Your task to perform on an android device: turn on location history Image 0: 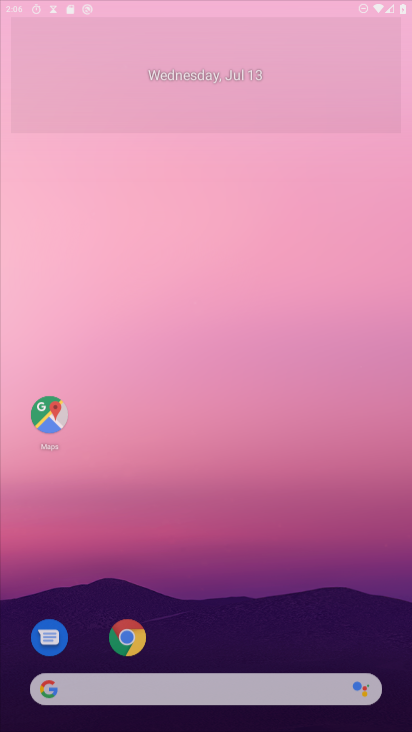
Step 0: press home button
Your task to perform on an android device: turn on location history Image 1: 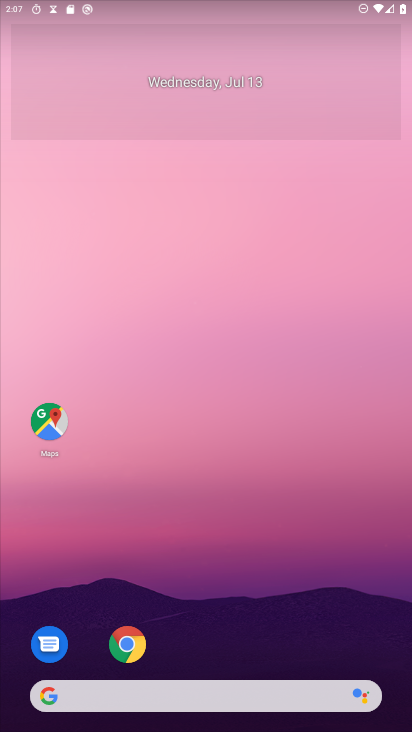
Step 1: press home button
Your task to perform on an android device: turn on location history Image 2: 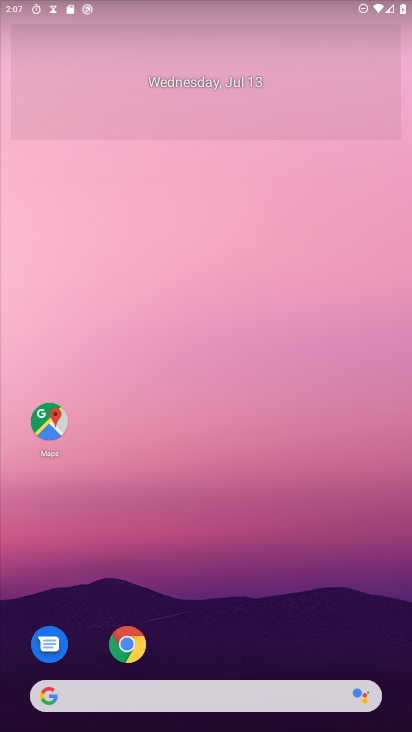
Step 2: drag from (311, 596) to (297, 55)
Your task to perform on an android device: turn on location history Image 3: 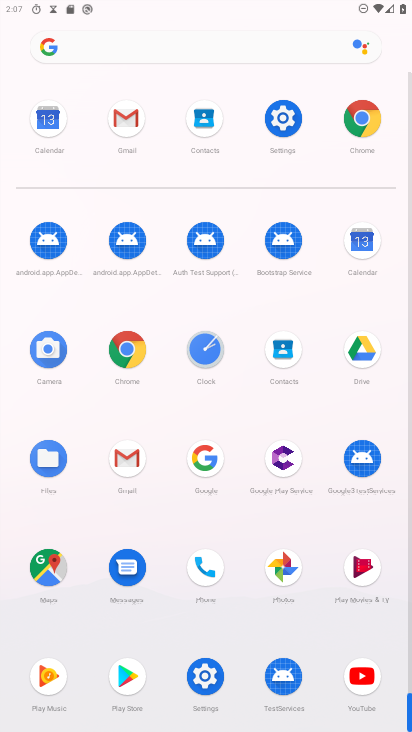
Step 3: click (285, 117)
Your task to perform on an android device: turn on location history Image 4: 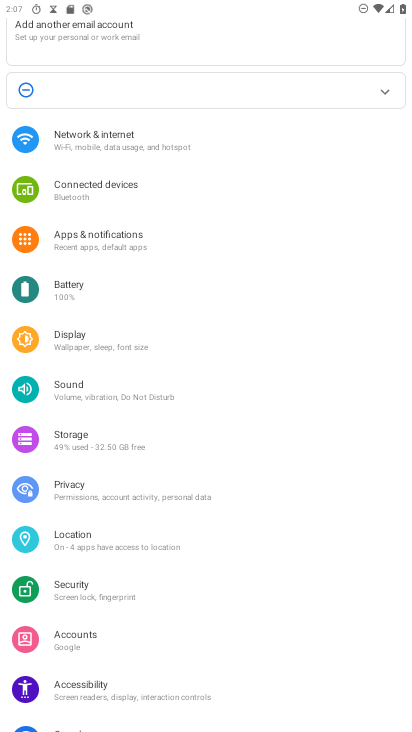
Step 4: click (100, 540)
Your task to perform on an android device: turn on location history Image 5: 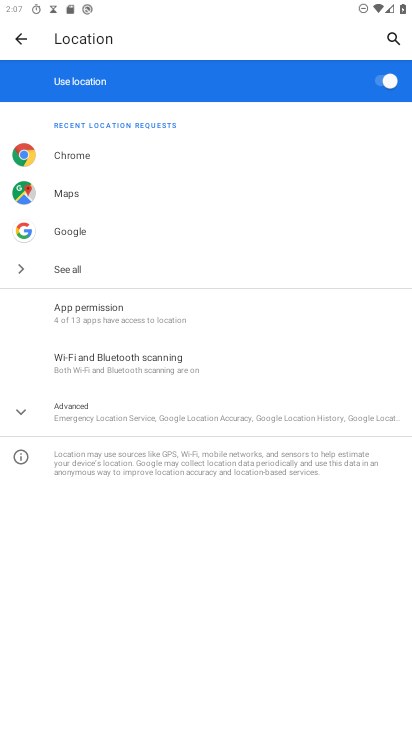
Step 5: click (74, 414)
Your task to perform on an android device: turn on location history Image 6: 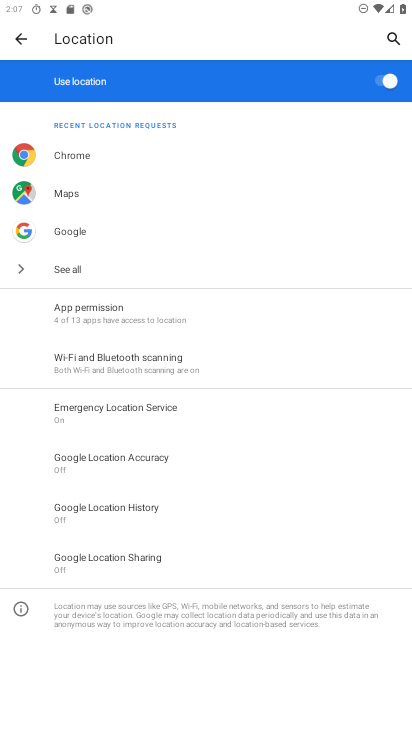
Step 6: click (130, 508)
Your task to perform on an android device: turn on location history Image 7: 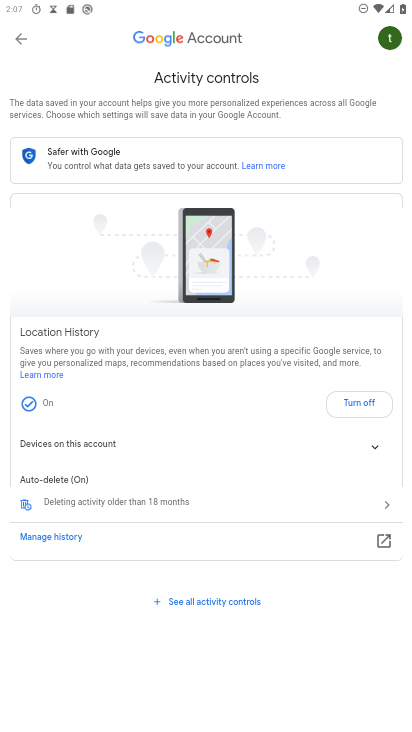
Step 7: click (378, 405)
Your task to perform on an android device: turn on location history Image 8: 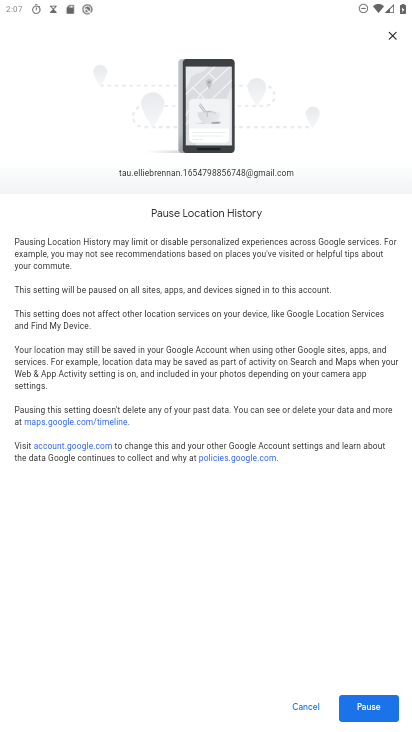
Step 8: click (364, 708)
Your task to perform on an android device: turn on location history Image 9: 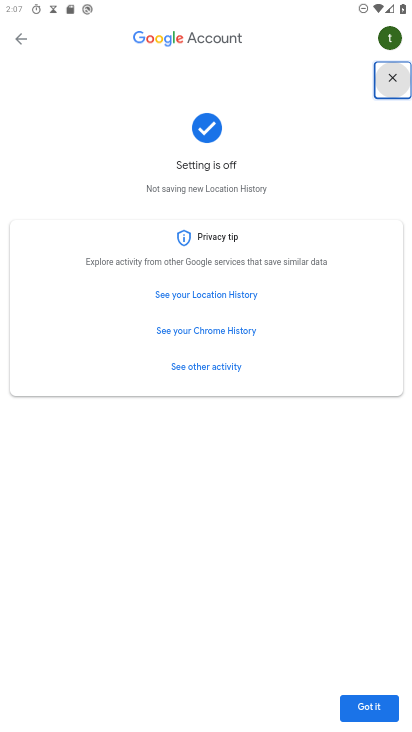
Step 9: click (369, 706)
Your task to perform on an android device: turn on location history Image 10: 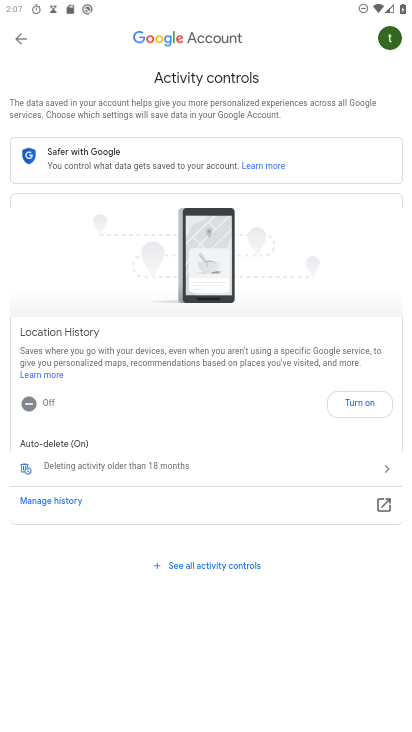
Step 10: task complete